Your task to perform on an android device: When is my next meeting? Image 0: 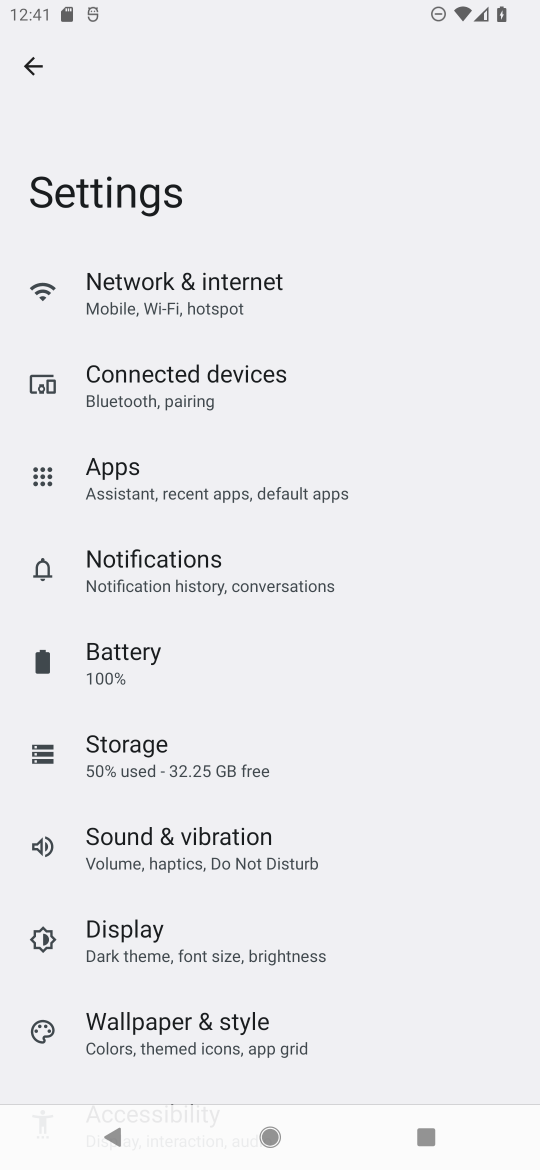
Step 0: press home button
Your task to perform on an android device: When is my next meeting? Image 1: 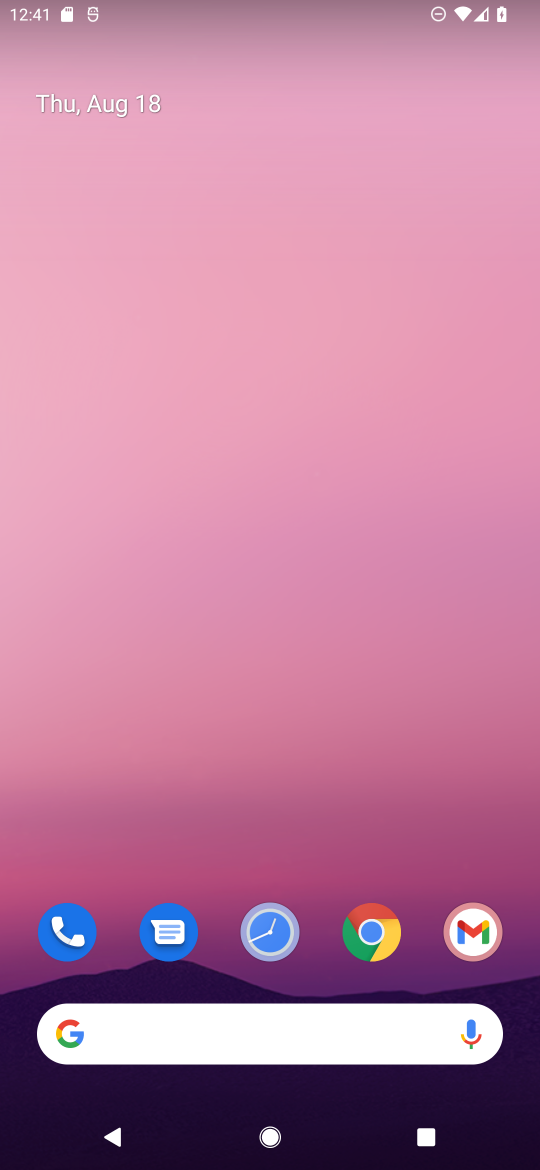
Step 1: drag from (291, 842) to (205, 76)
Your task to perform on an android device: When is my next meeting? Image 2: 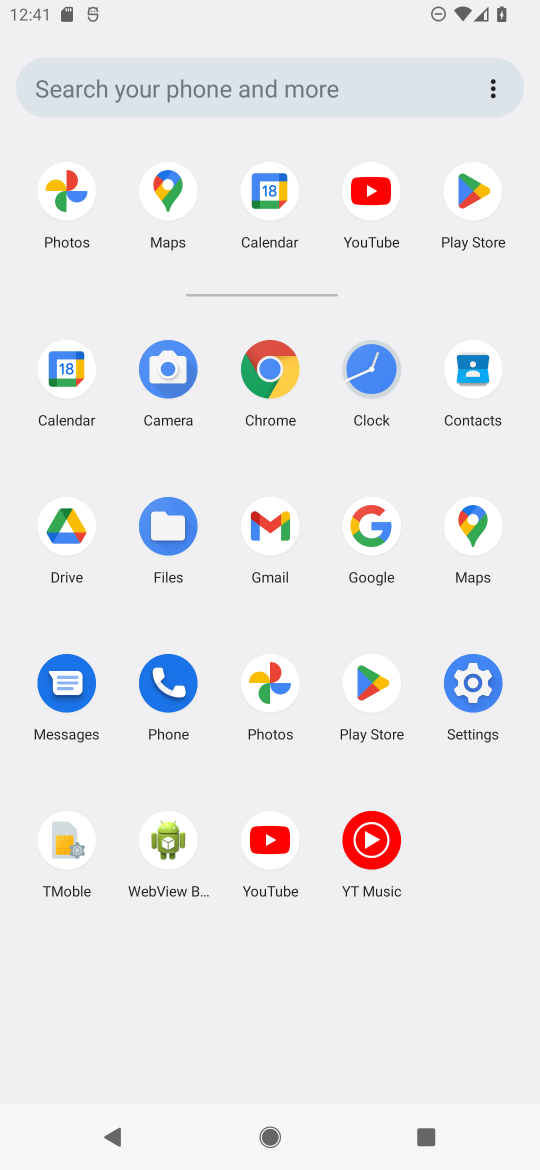
Step 2: click (265, 192)
Your task to perform on an android device: When is my next meeting? Image 3: 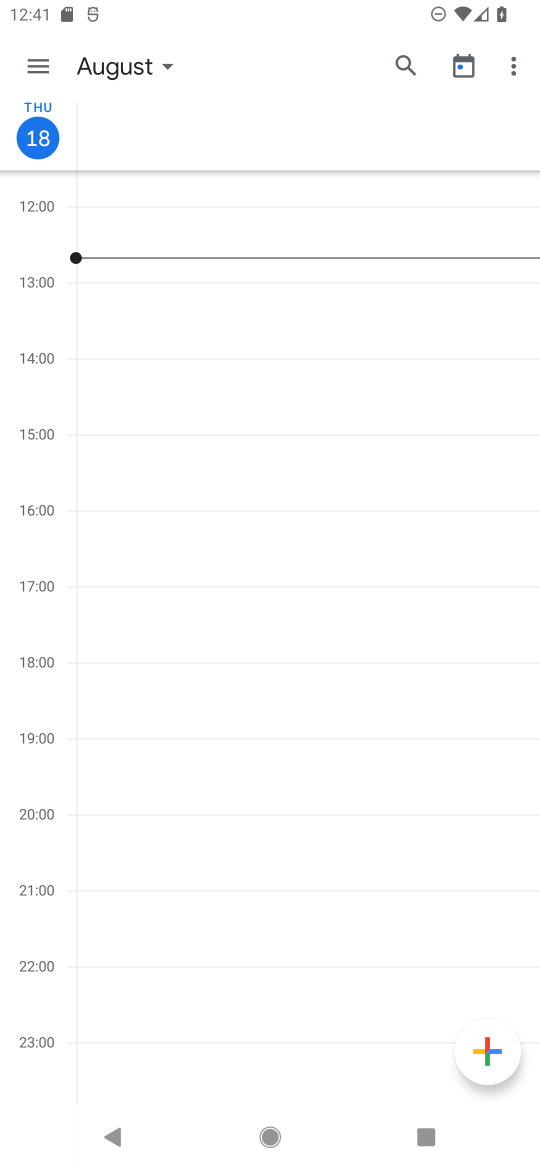
Step 3: task complete